Your task to perform on an android device: turn on wifi Image 0: 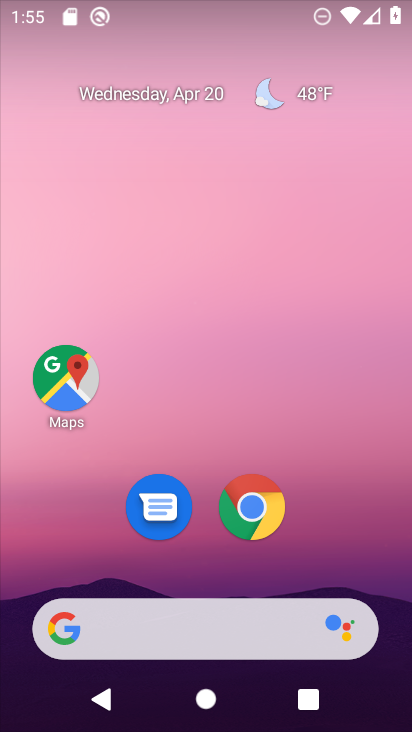
Step 0: drag from (208, 725) to (191, 94)
Your task to perform on an android device: turn on wifi Image 1: 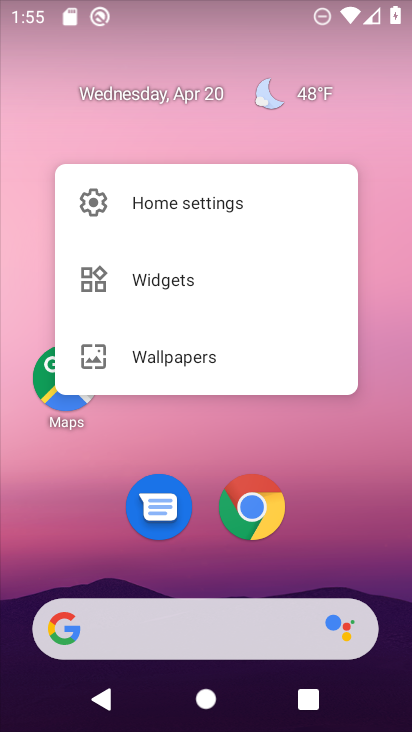
Step 1: drag from (199, 724) to (206, 53)
Your task to perform on an android device: turn on wifi Image 2: 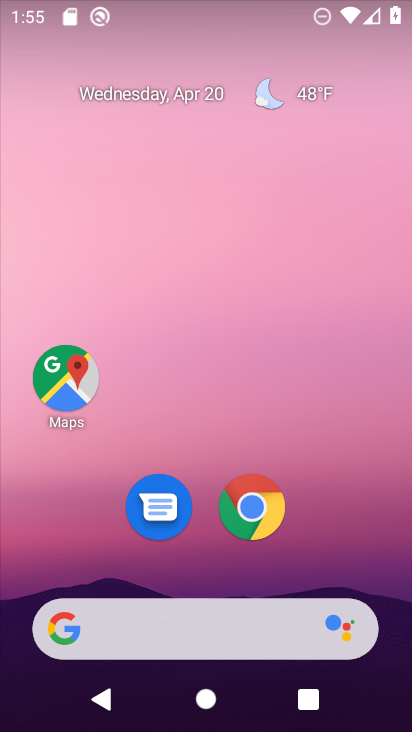
Step 2: drag from (200, 723) to (187, 115)
Your task to perform on an android device: turn on wifi Image 3: 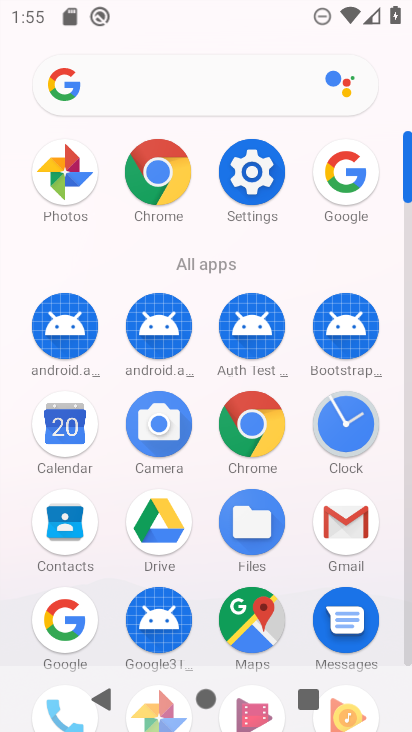
Step 3: click (250, 163)
Your task to perform on an android device: turn on wifi Image 4: 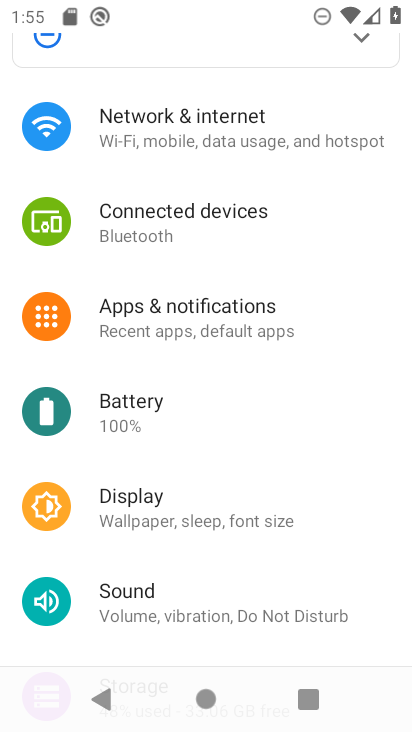
Step 4: click (197, 129)
Your task to perform on an android device: turn on wifi Image 5: 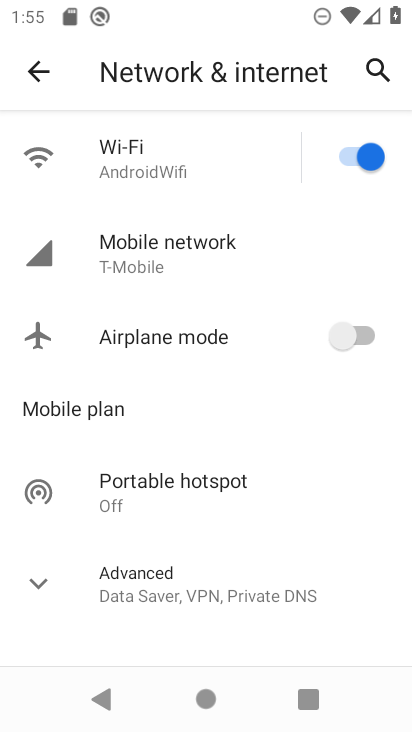
Step 5: task complete